Your task to perform on an android device: toggle sleep mode Image 0: 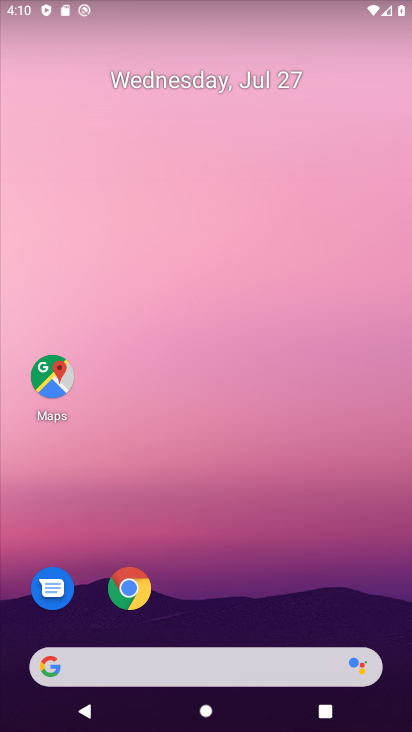
Step 0: drag from (240, 727) to (244, 112)
Your task to perform on an android device: toggle sleep mode Image 1: 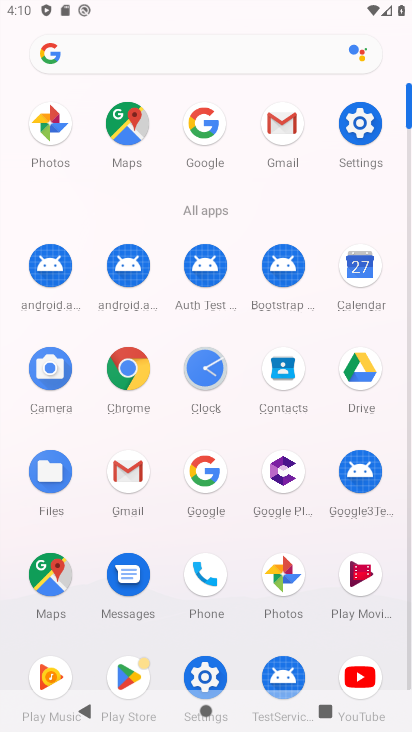
Step 1: click (368, 133)
Your task to perform on an android device: toggle sleep mode Image 2: 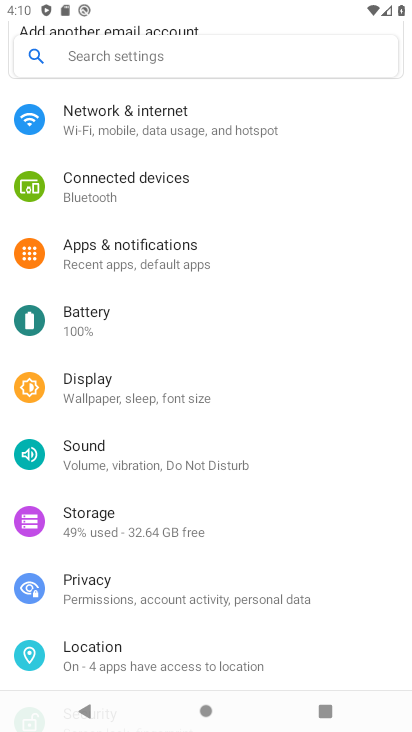
Step 2: task complete